Your task to perform on an android device: change text size in settings app Image 0: 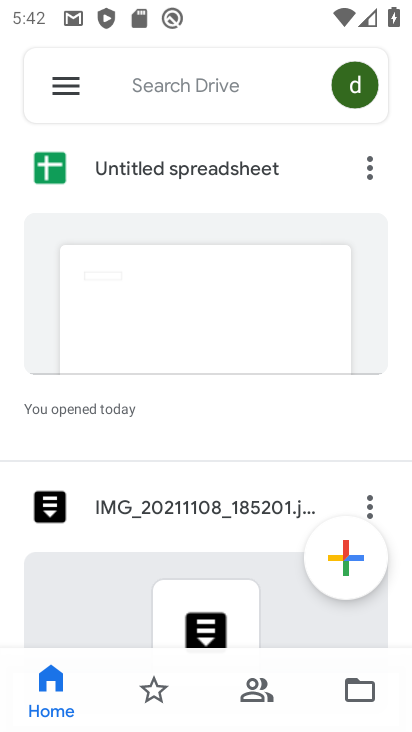
Step 0: press home button
Your task to perform on an android device: change text size in settings app Image 1: 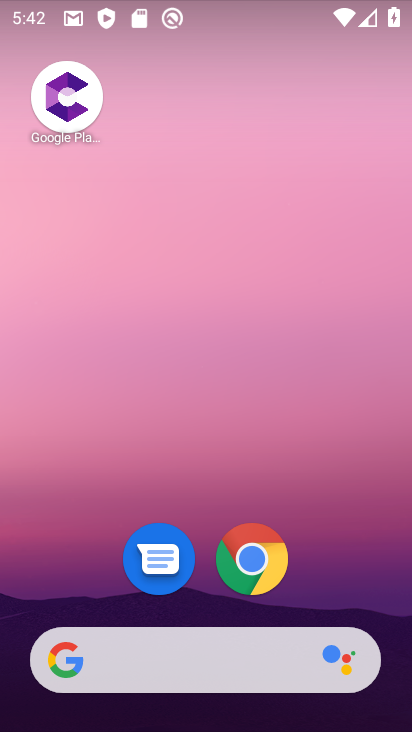
Step 1: drag from (322, 489) to (162, 12)
Your task to perform on an android device: change text size in settings app Image 2: 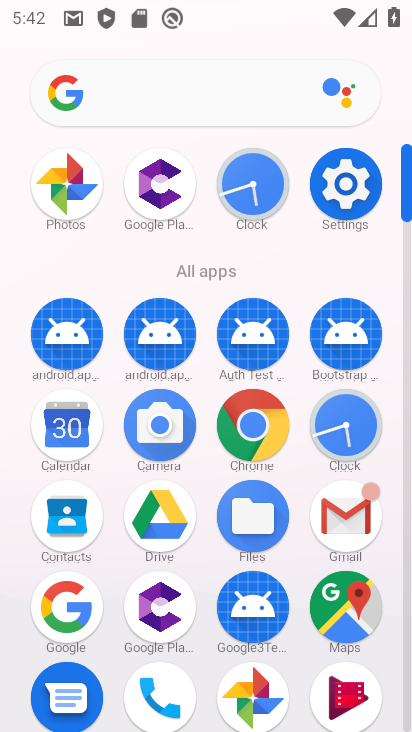
Step 2: click (347, 185)
Your task to perform on an android device: change text size in settings app Image 3: 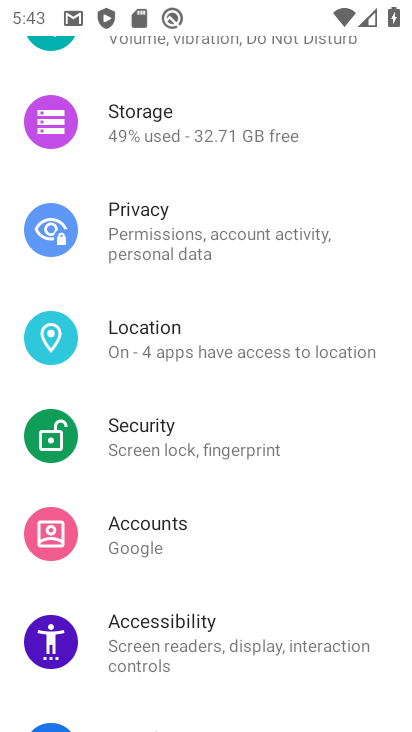
Step 3: drag from (267, 306) to (265, 585)
Your task to perform on an android device: change text size in settings app Image 4: 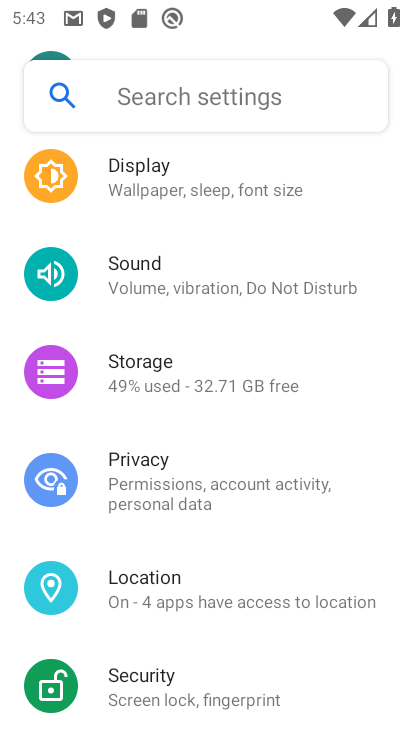
Step 4: click (136, 176)
Your task to perform on an android device: change text size in settings app Image 5: 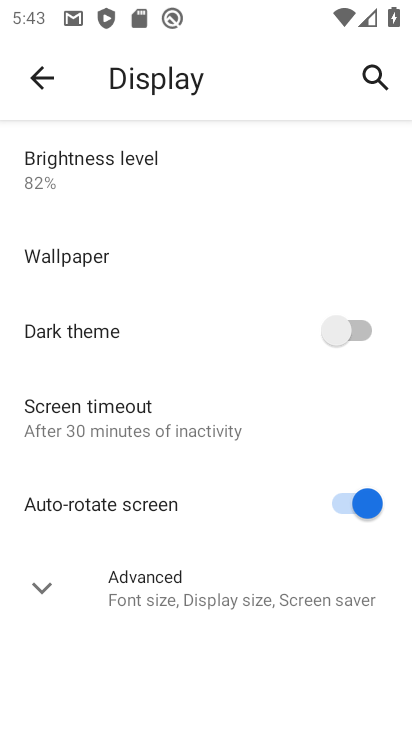
Step 5: click (40, 585)
Your task to perform on an android device: change text size in settings app Image 6: 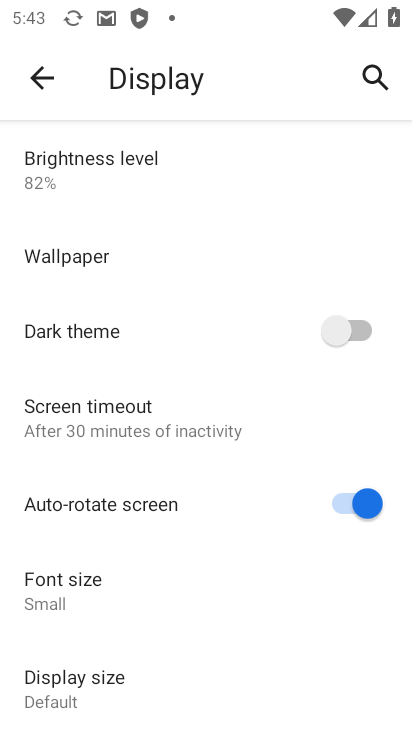
Step 6: click (50, 594)
Your task to perform on an android device: change text size in settings app Image 7: 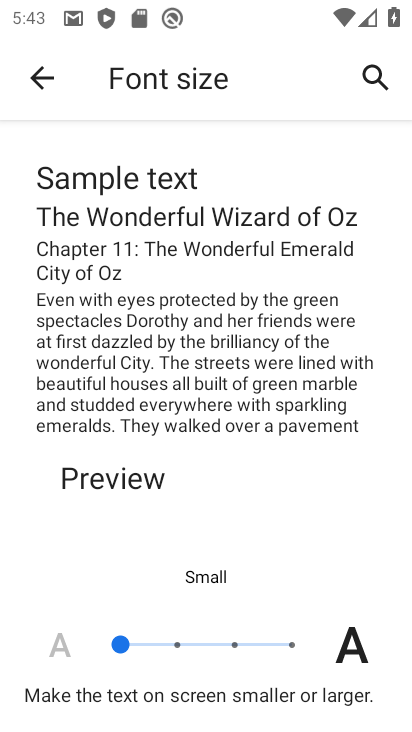
Step 7: click (172, 643)
Your task to perform on an android device: change text size in settings app Image 8: 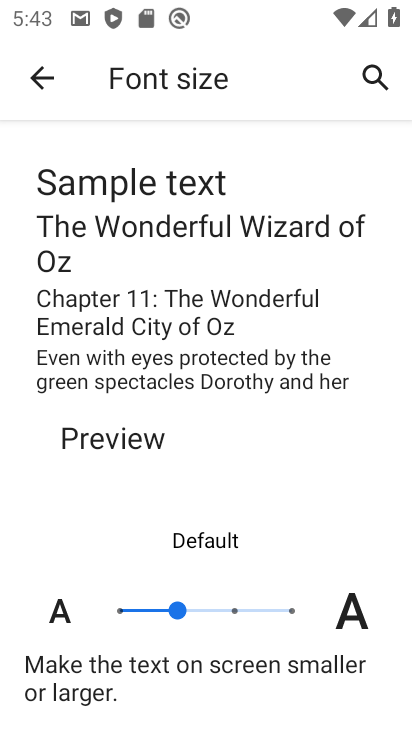
Step 8: task complete